Your task to perform on an android device: Open Reddit.com Image 0: 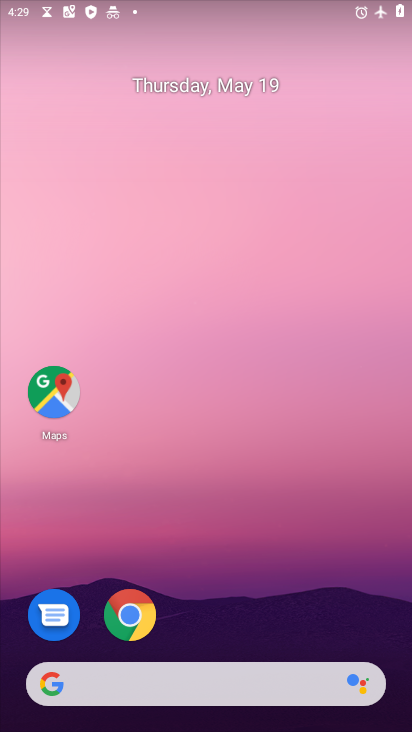
Step 0: drag from (321, 642) to (225, 127)
Your task to perform on an android device: Open Reddit.com Image 1: 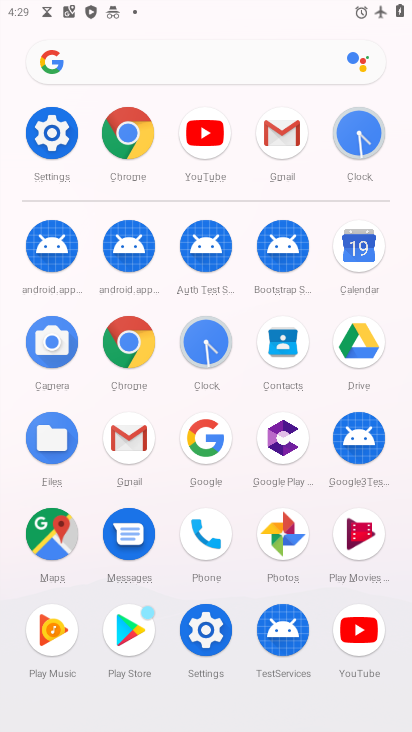
Step 1: click (48, 139)
Your task to perform on an android device: Open Reddit.com Image 2: 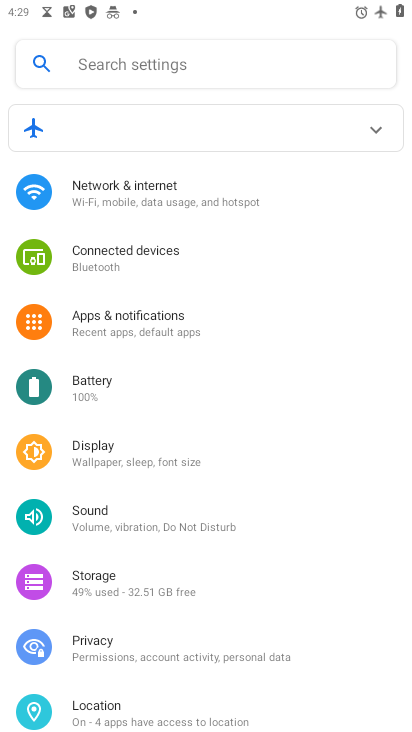
Step 2: click (203, 181)
Your task to perform on an android device: Open Reddit.com Image 3: 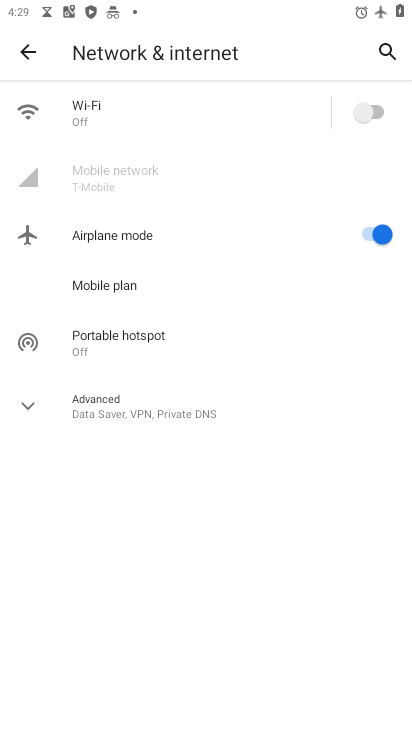
Step 3: click (375, 241)
Your task to perform on an android device: Open Reddit.com Image 4: 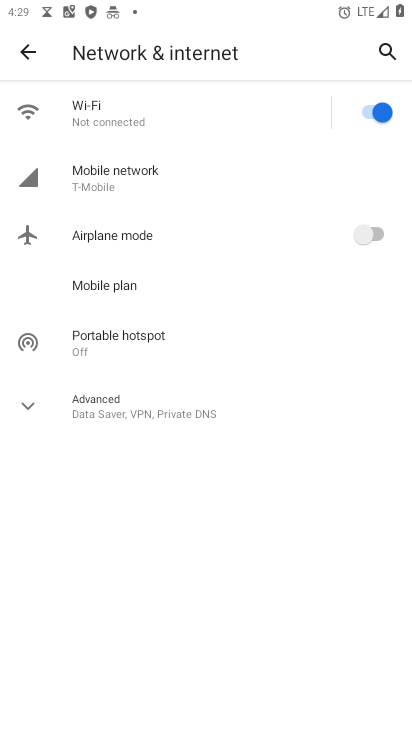
Step 4: click (359, 106)
Your task to perform on an android device: Open Reddit.com Image 5: 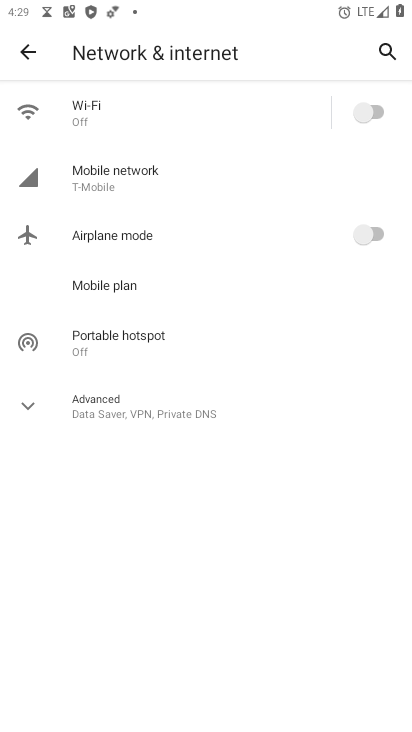
Step 5: click (365, 121)
Your task to perform on an android device: Open Reddit.com Image 6: 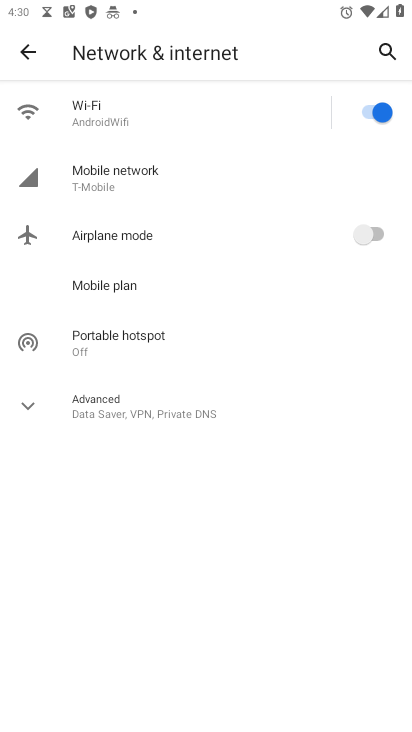
Step 6: click (28, 49)
Your task to perform on an android device: Open Reddit.com Image 7: 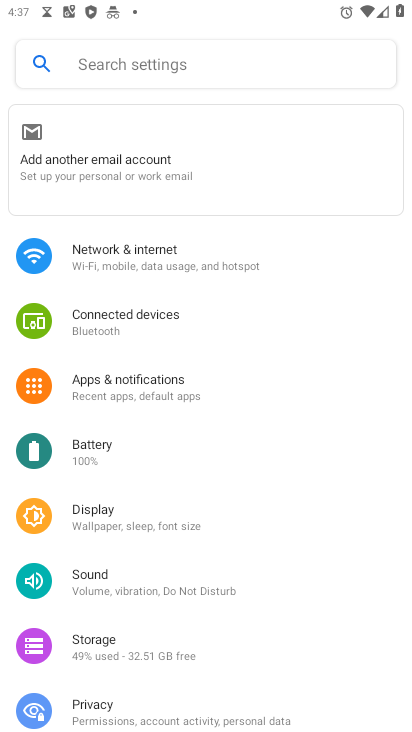
Step 7: press back button
Your task to perform on an android device: Open Reddit.com Image 8: 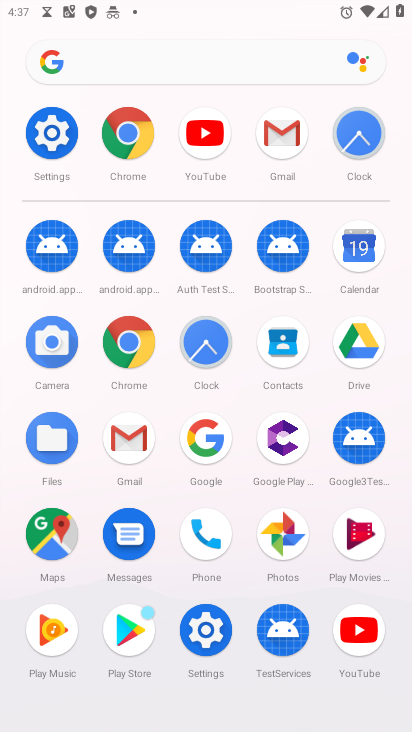
Step 8: click (136, 137)
Your task to perform on an android device: Open Reddit.com Image 9: 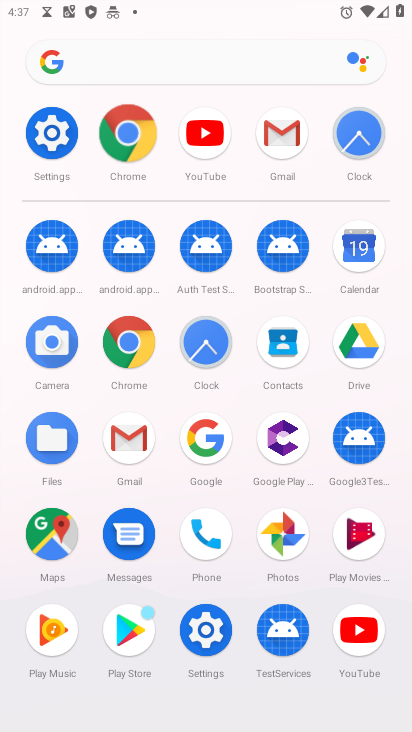
Step 9: click (135, 137)
Your task to perform on an android device: Open Reddit.com Image 10: 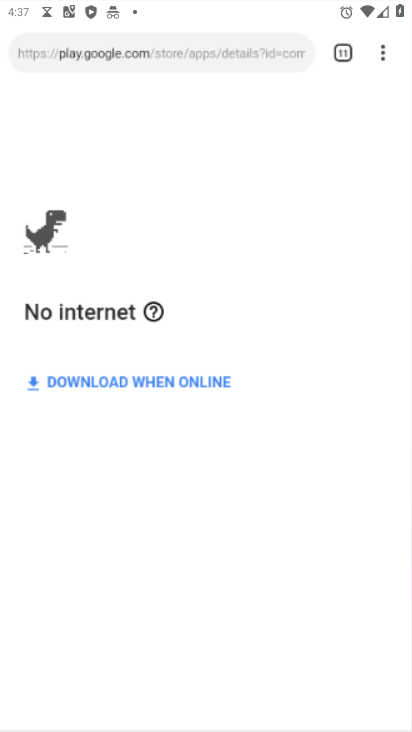
Step 10: click (135, 137)
Your task to perform on an android device: Open Reddit.com Image 11: 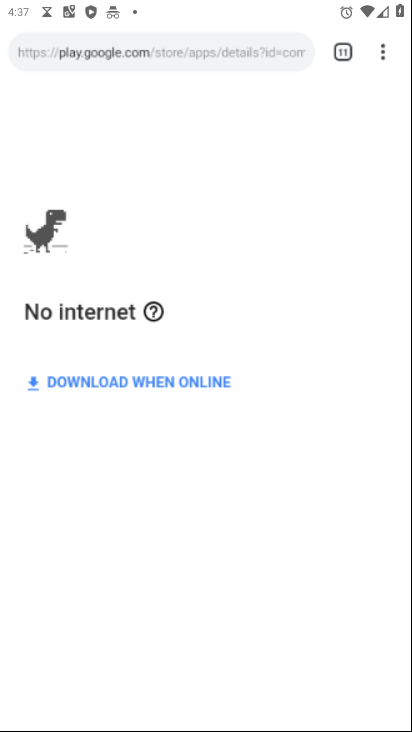
Step 11: click (135, 137)
Your task to perform on an android device: Open Reddit.com Image 12: 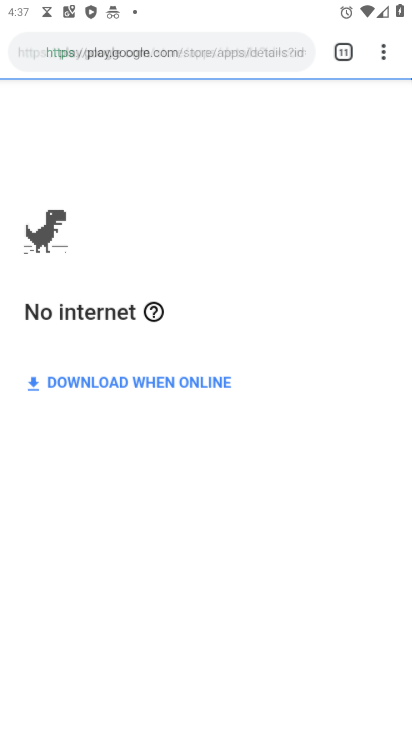
Step 12: click (135, 137)
Your task to perform on an android device: Open Reddit.com Image 13: 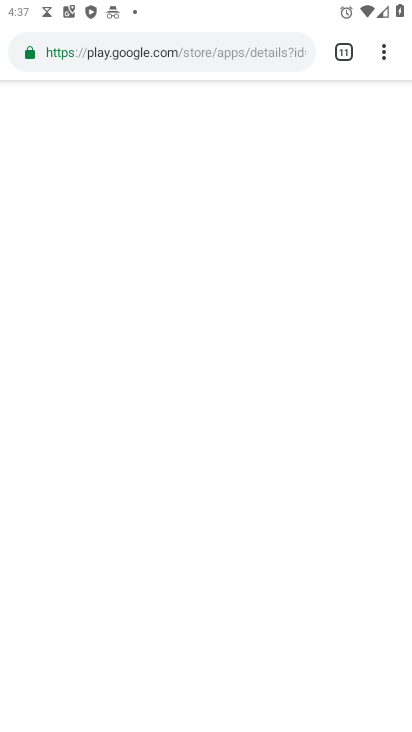
Step 13: click (135, 137)
Your task to perform on an android device: Open Reddit.com Image 14: 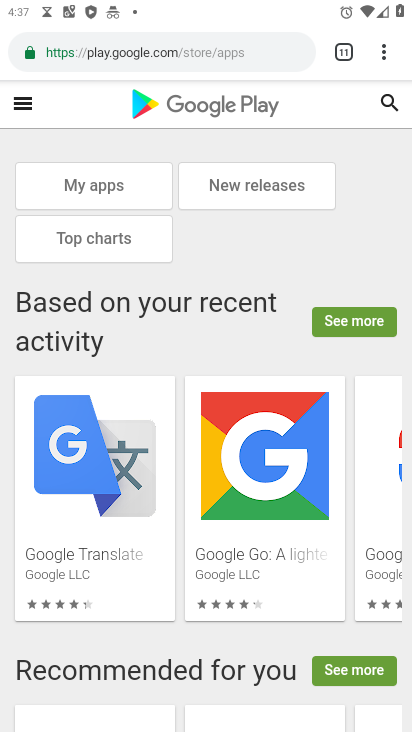
Step 14: drag from (382, 59) to (195, 105)
Your task to perform on an android device: Open Reddit.com Image 15: 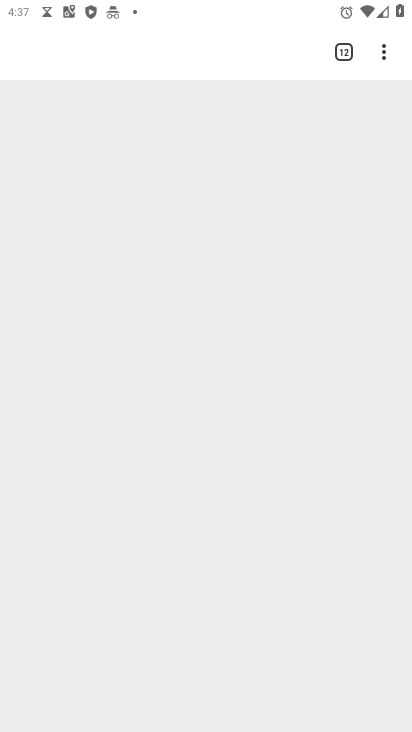
Step 15: click (196, 107)
Your task to perform on an android device: Open Reddit.com Image 16: 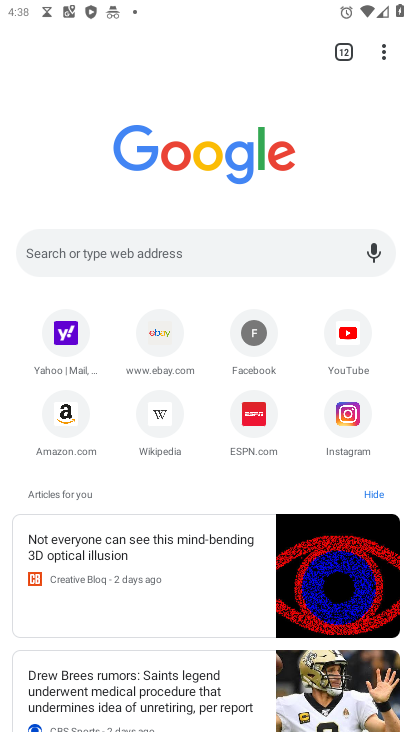
Step 16: drag from (385, 54) to (203, 102)
Your task to perform on an android device: Open Reddit.com Image 17: 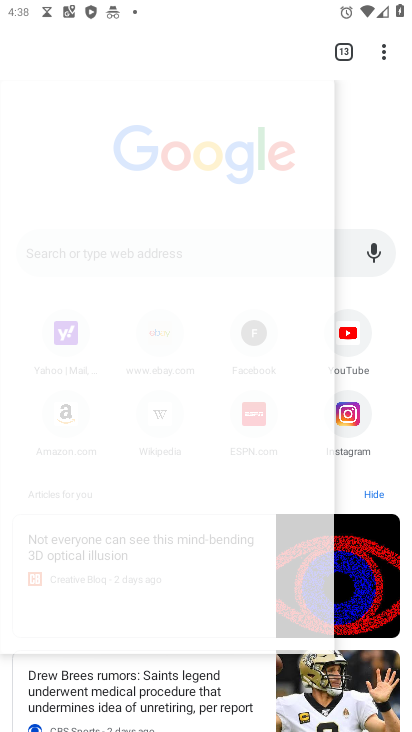
Step 17: click (204, 103)
Your task to perform on an android device: Open Reddit.com Image 18: 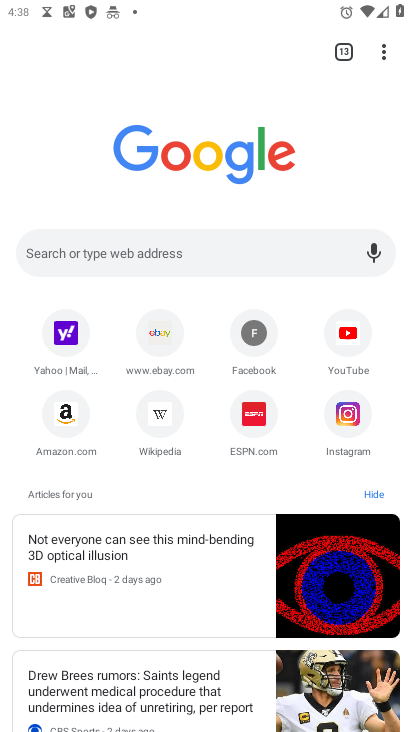
Step 18: click (75, 259)
Your task to perform on an android device: Open Reddit.com Image 19: 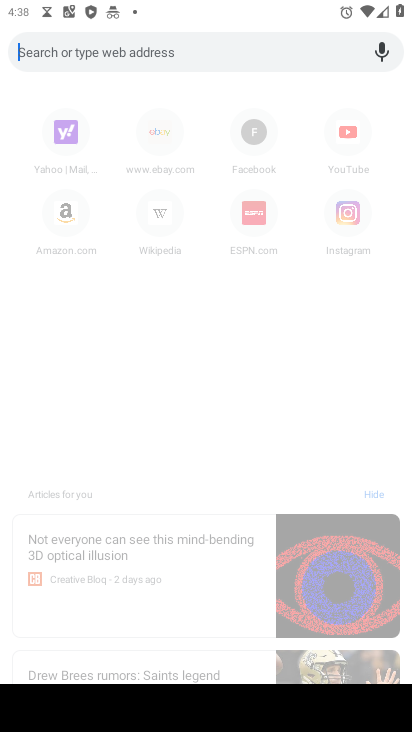
Step 19: type "reddit.com"
Your task to perform on an android device: Open Reddit.com Image 20: 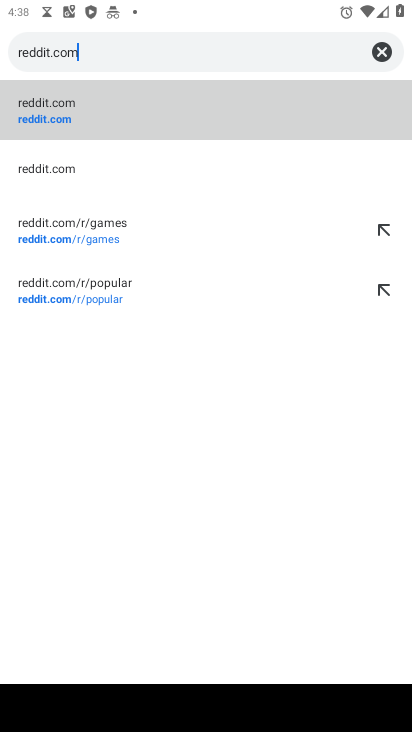
Step 20: click (39, 115)
Your task to perform on an android device: Open Reddit.com Image 21: 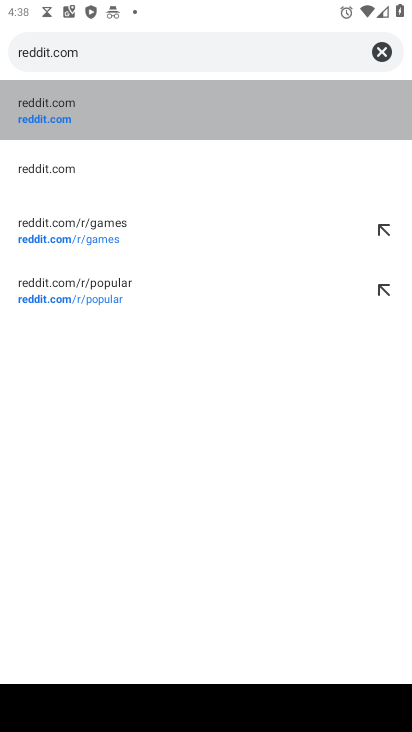
Step 21: click (38, 114)
Your task to perform on an android device: Open Reddit.com Image 22: 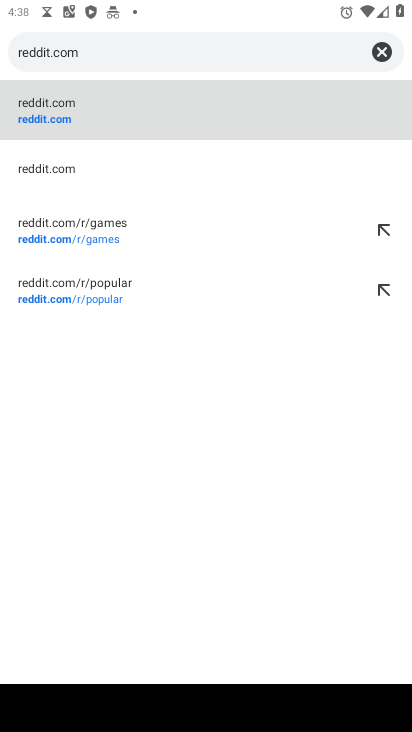
Step 22: click (37, 114)
Your task to perform on an android device: Open Reddit.com Image 23: 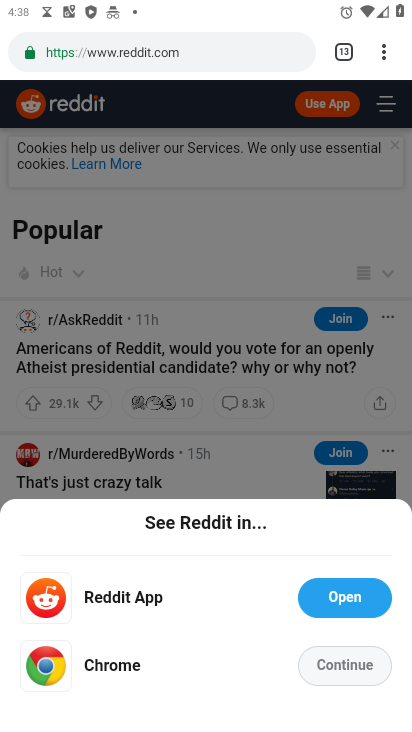
Step 23: task complete